Your task to perform on an android device: toggle data saver in the chrome app Image 0: 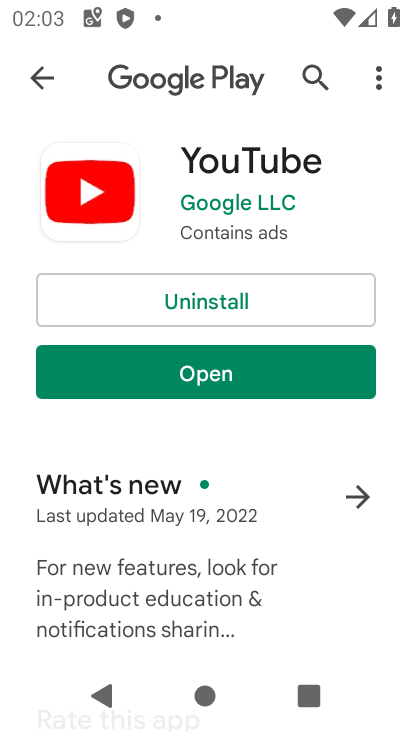
Step 0: press home button
Your task to perform on an android device: toggle data saver in the chrome app Image 1: 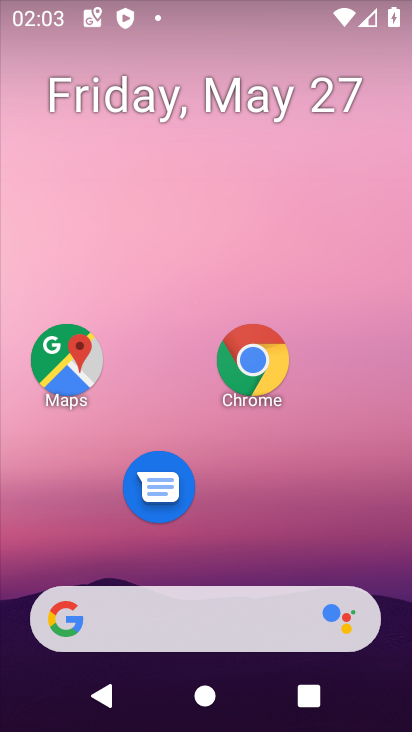
Step 1: click (250, 360)
Your task to perform on an android device: toggle data saver in the chrome app Image 2: 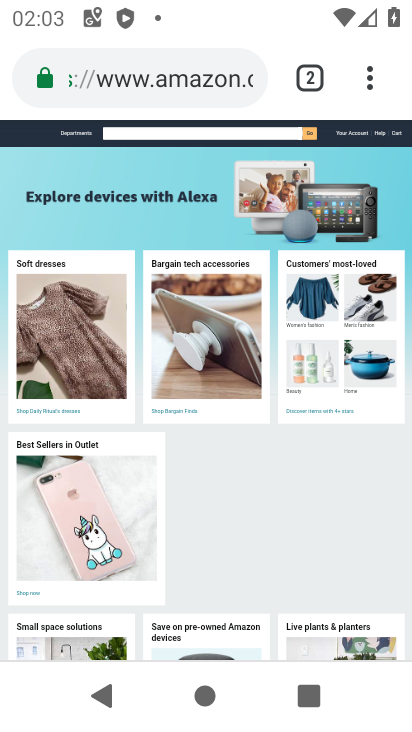
Step 2: click (361, 83)
Your task to perform on an android device: toggle data saver in the chrome app Image 3: 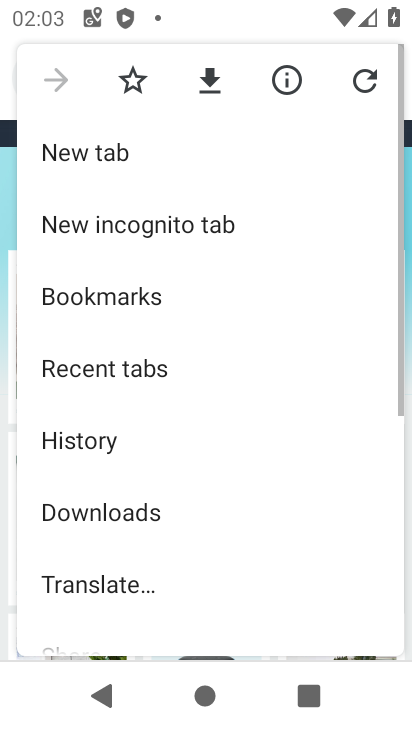
Step 3: drag from (273, 512) to (296, 157)
Your task to perform on an android device: toggle data saver in the chrome app Image 4: 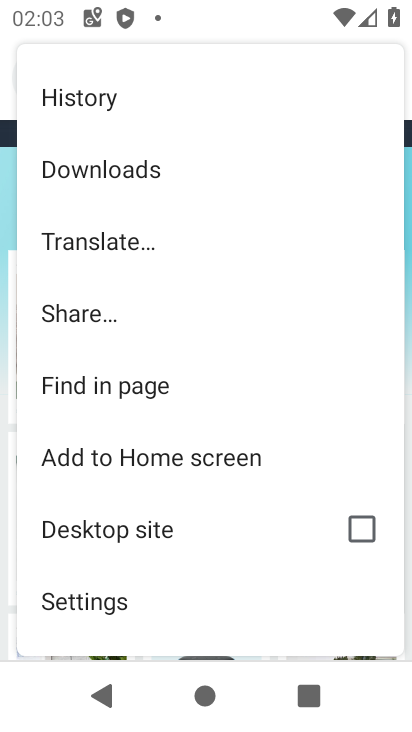
Step 4: click (126, 589)
Your task to perform on an android device: toggle data saver in the chrome app Image 5: 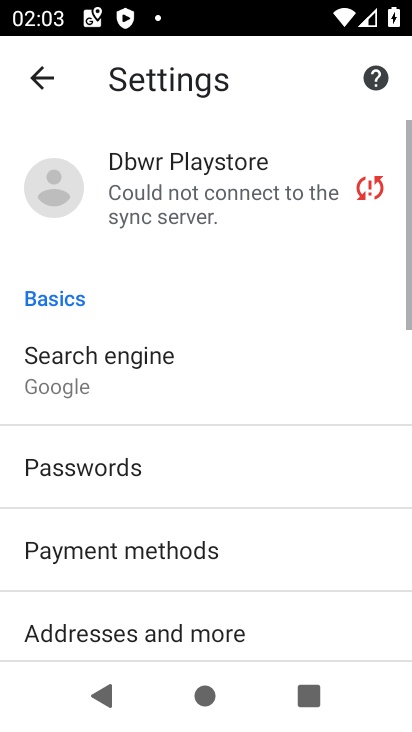
Step 5: drag from (273, 574) to (285, 115)
Your task to perform on an android device: toggle data saver in the chrome app Image 6: 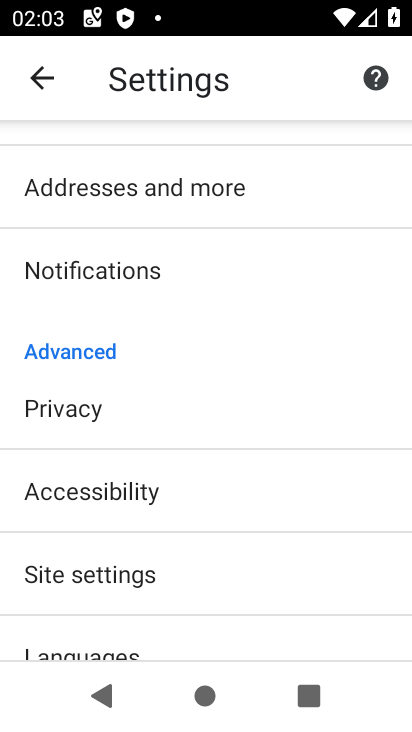
Step 6: drag from (204, 577) to (216, 235)
Your task to perform on an android device: toggle data saver in the chrome app Image 7: 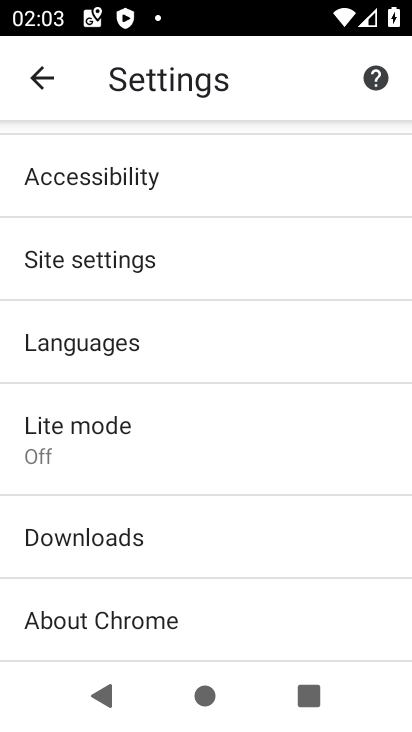
Step 7: click (125, 435)
Your task to perform on an android device: toggle data saver in the chrome app Image 8: 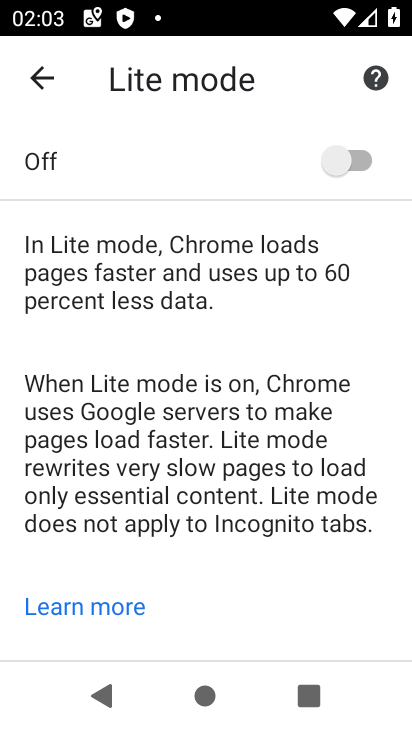
Step 8: click (355, 154)
Your task to perform on an android device: toggle data saver in the chrome app Image 9: 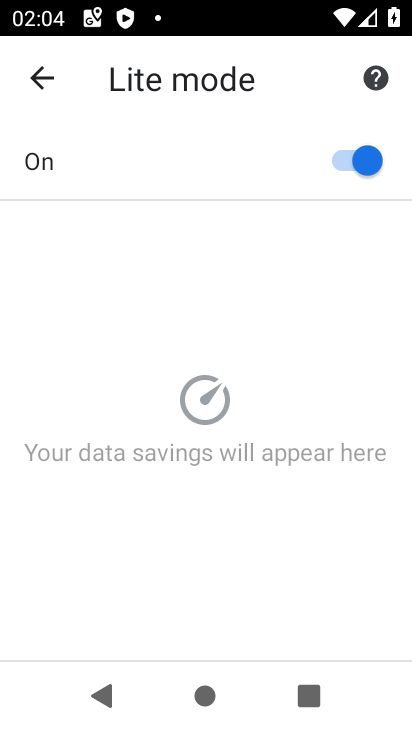
Step 9: task complete